Your task to perform on an android device: open a bookmark in the chrome app Image 0: 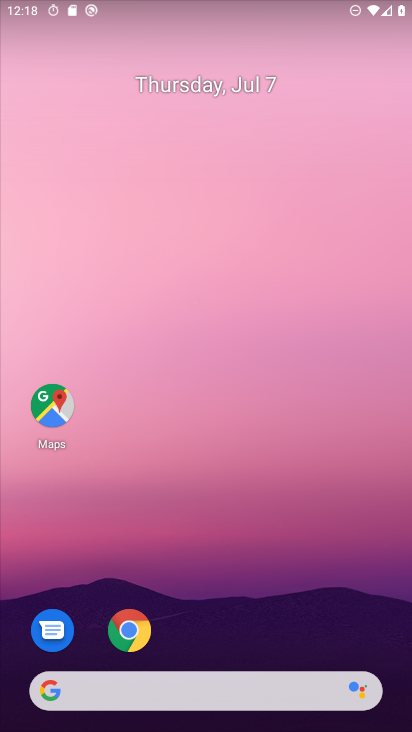
Step 0: drag from (185, 624) to (221, 27)
Your task to perform on an android device: open a bookmark in the chrome app Image 1: 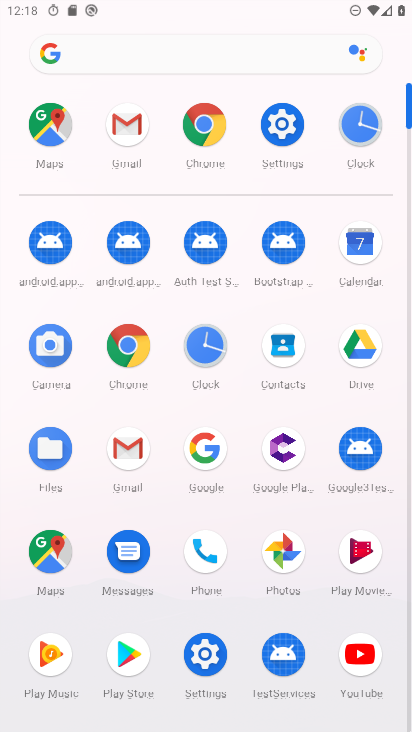
Step 1: click (132, 355)
Your task to perform on an android device: open a bookmark in the chrome app Image 2: 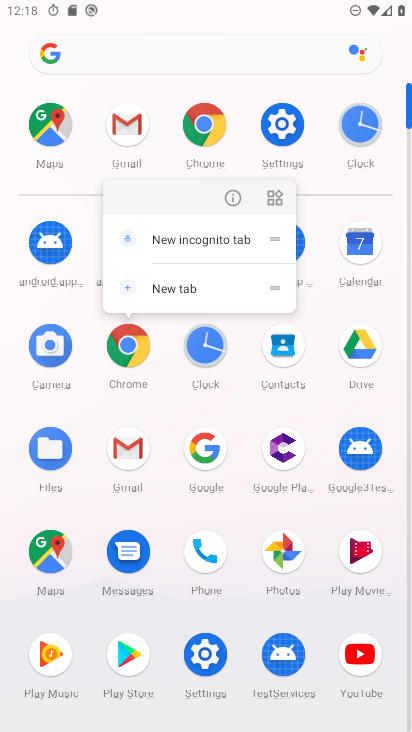
Step 2: click (132, 355)
Your task to perform on an android device: open a bookmark in the chrome app Image 3: 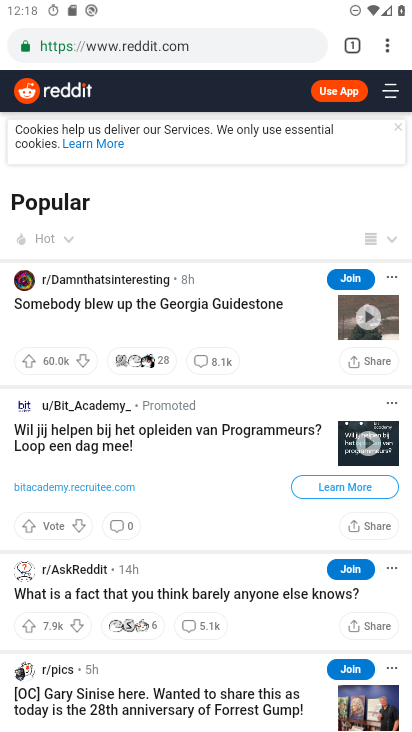
Step 3: click (386, 45)
Your task to perform on an android device: open a bookmark in the chrome app Image 4: 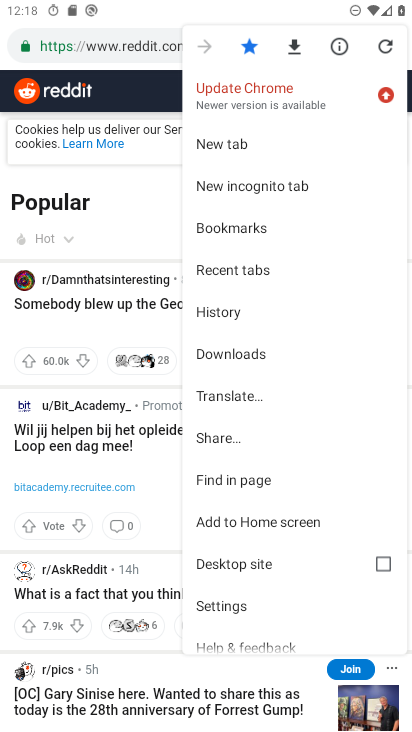
Step 4: click (253, 226)
Your task to perform on an android device: open a bookmark in the chrome app Image 5: 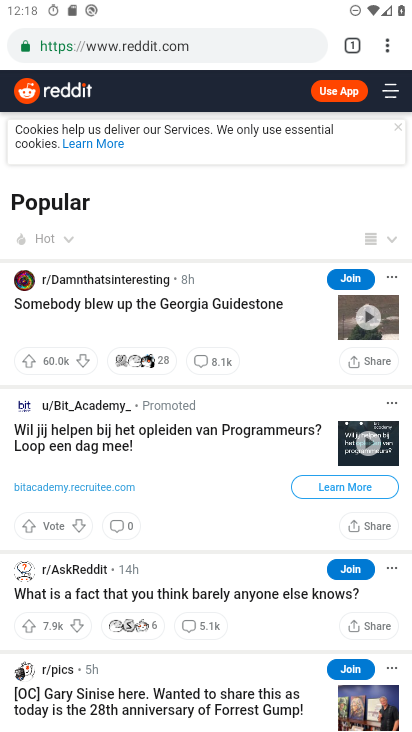
Step 5: click (247, 231)
Your task to perform on an android device: open a bookmark in the chrome app Image 6: 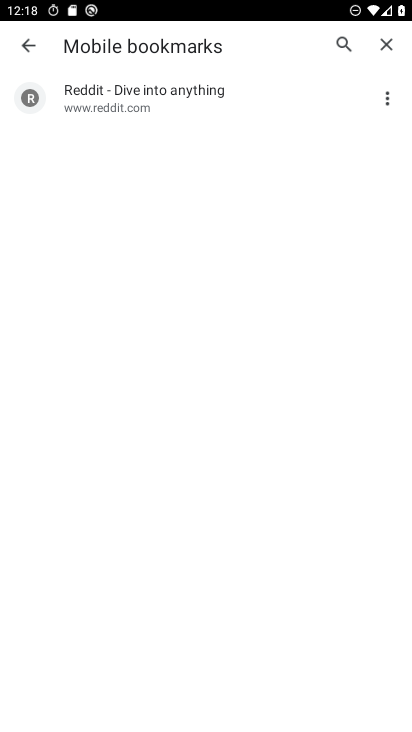
Step 6: click (127, 111)
Your task to perform on an android device: open a bookmark in the chrome app Image 7: 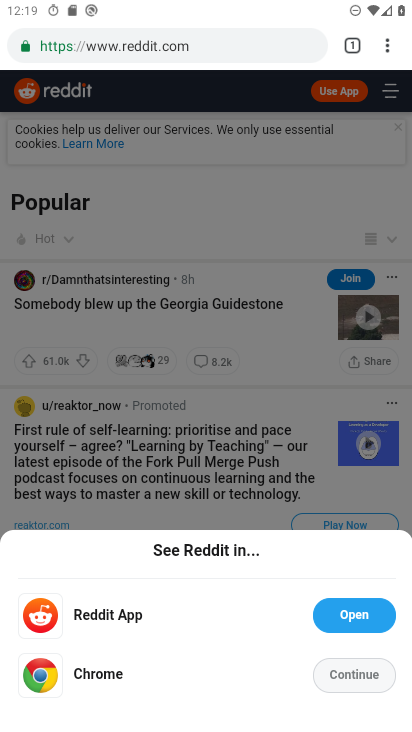
Step 7: task complete